Your task to perform on an android device: Open notification settings Image 0: 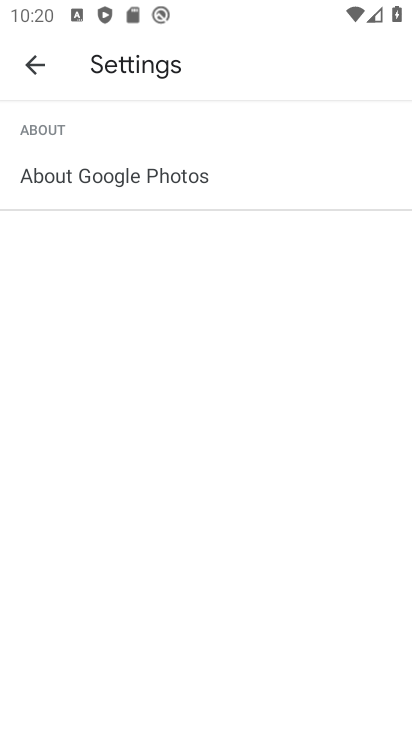
Step 0: press home button
Your task to perform on an android device: Open notification settings Image 1: 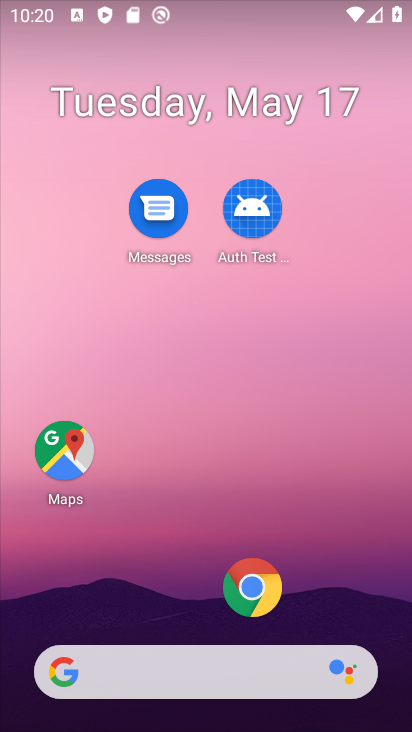
Step 1: drag from (217, 525) to (97, 35)
Your task to perform on an android device: Open notification settings Image 2: 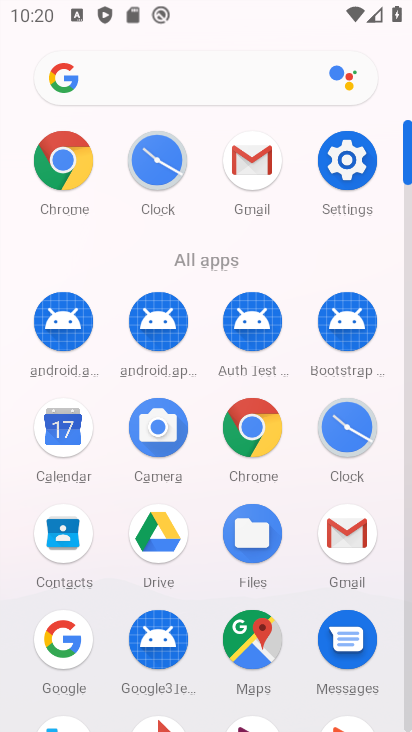
Step 2: click (345, 183)
Your task to perform on an android device: Open notification settings Image 3: 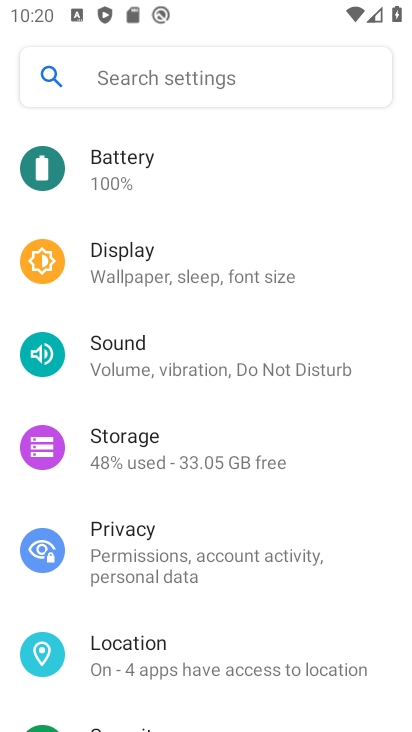
Step 3: drag from (185, 400) to (177, 189)
Your task to perform on an android device: Open notification settings Image 4: 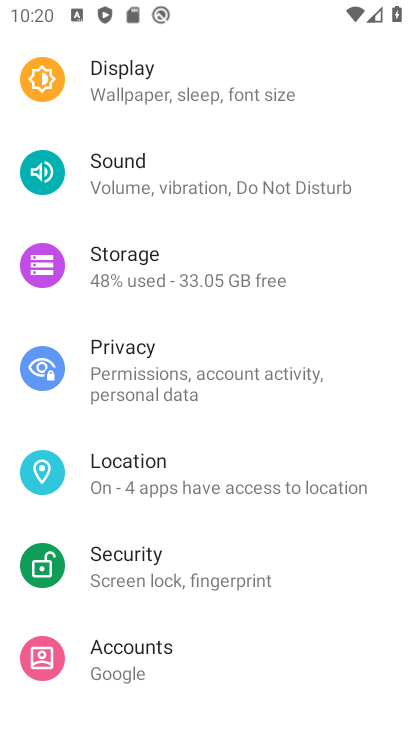
Step 4: drag from (185, 514) to (202, 708)
Your task to perform on an android device: Open notification settings Image 5: 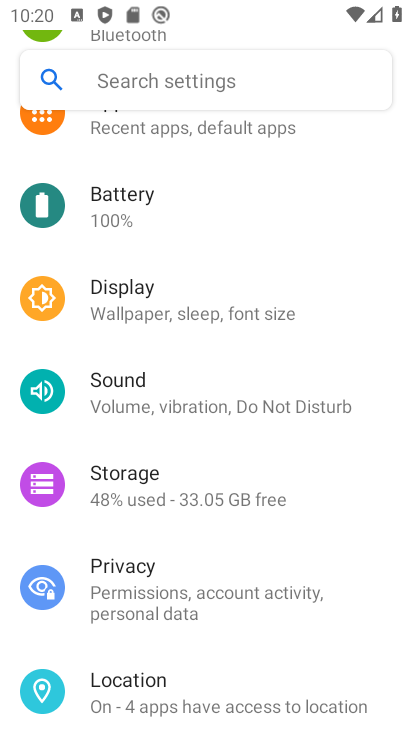
Step 5: drag from (142, 315) to (177, 723)
Your task to perform on an android device: Open notification settings Image 6: 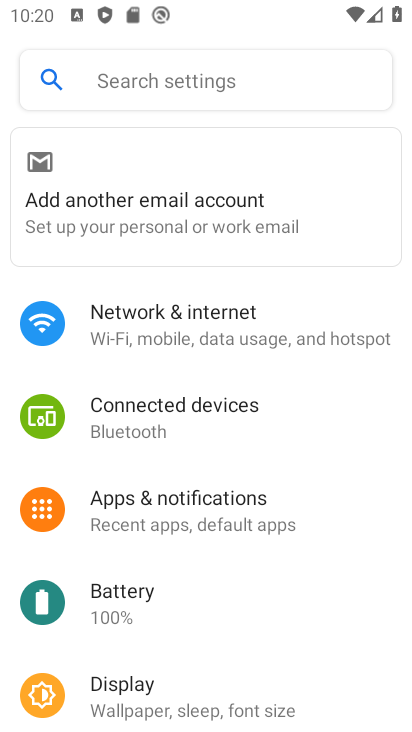
Step 6: click (137, 502)
Your task to perform on an android device: Open notification settings Image 7: 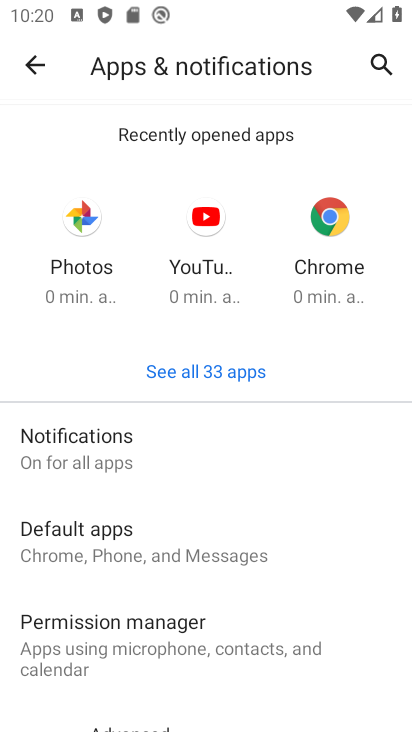
Step 7: click (93, 476)
Your task to perform on an android device: Open notification settings Image 8: 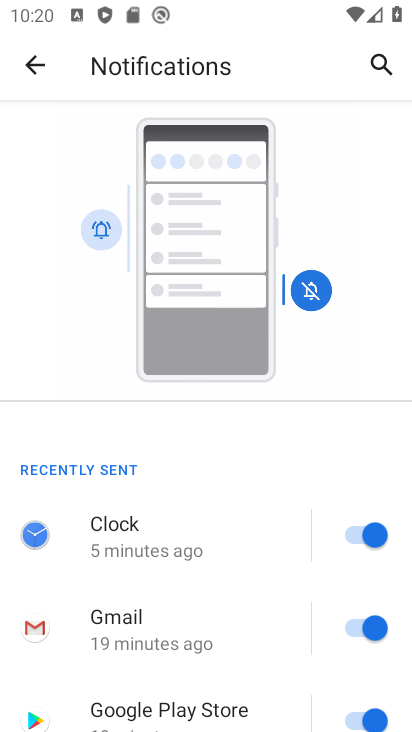
Step 8: task complete